Your task to perform on an android device: Open notification settings Image 0: 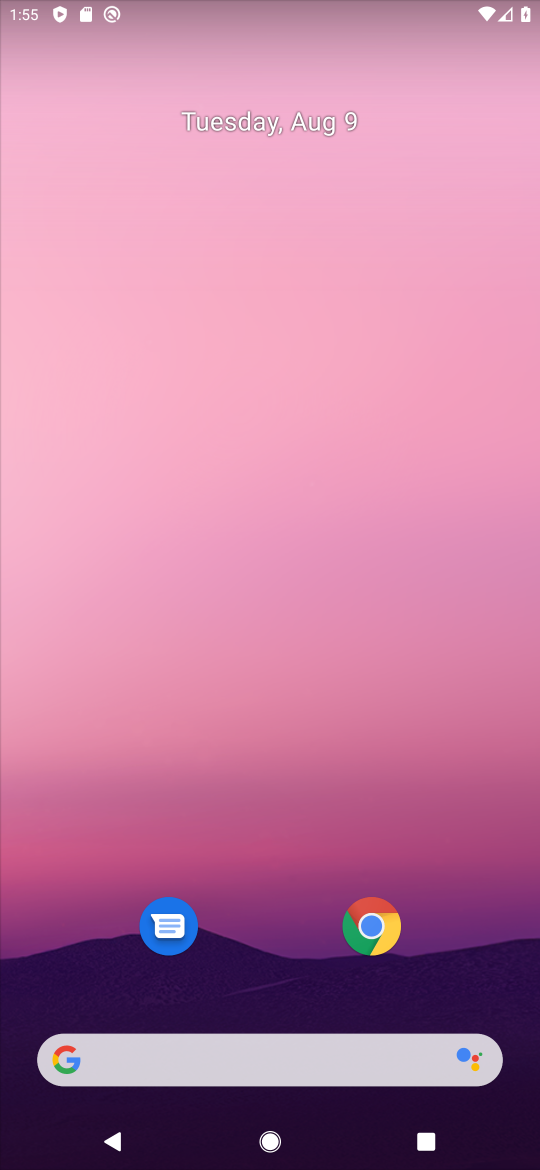
Step 0: press home button
Your task to perform on an android device: Open notification settings Image 1: 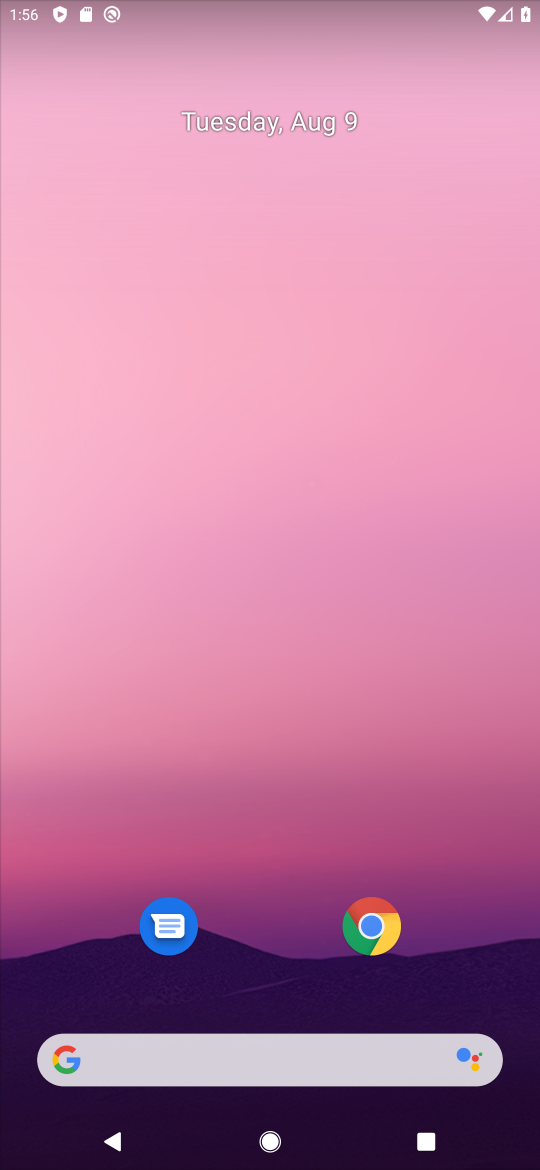
Step 1: drag from (319, 774) to (319, 172)
Your task to perform on an android device: Open notification settings Image 2: 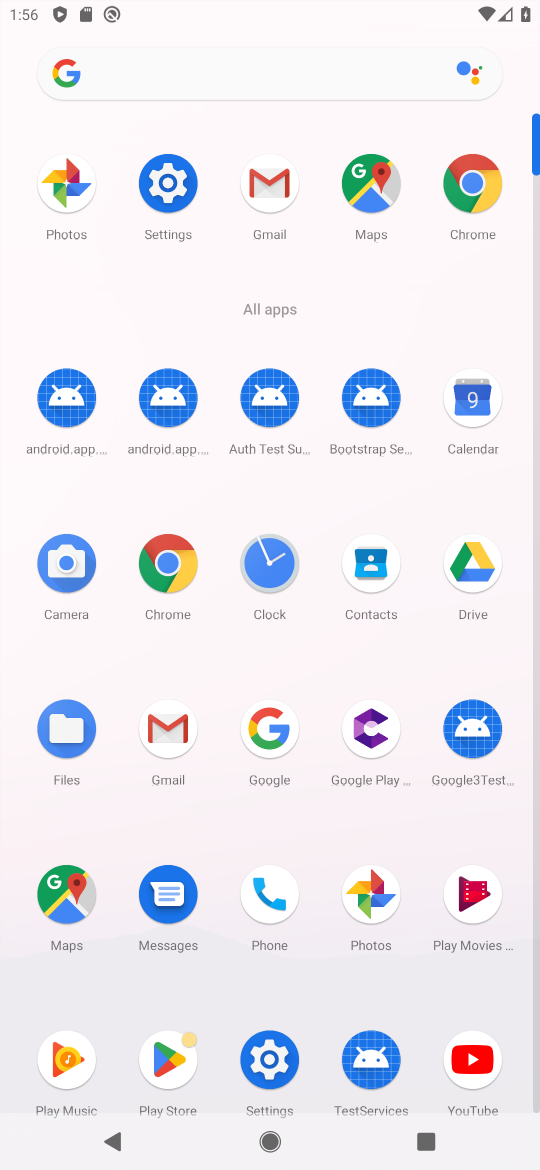
Step 2: click (288, 1075)
Your task to perform on an android device: Open notification settings Image 3: 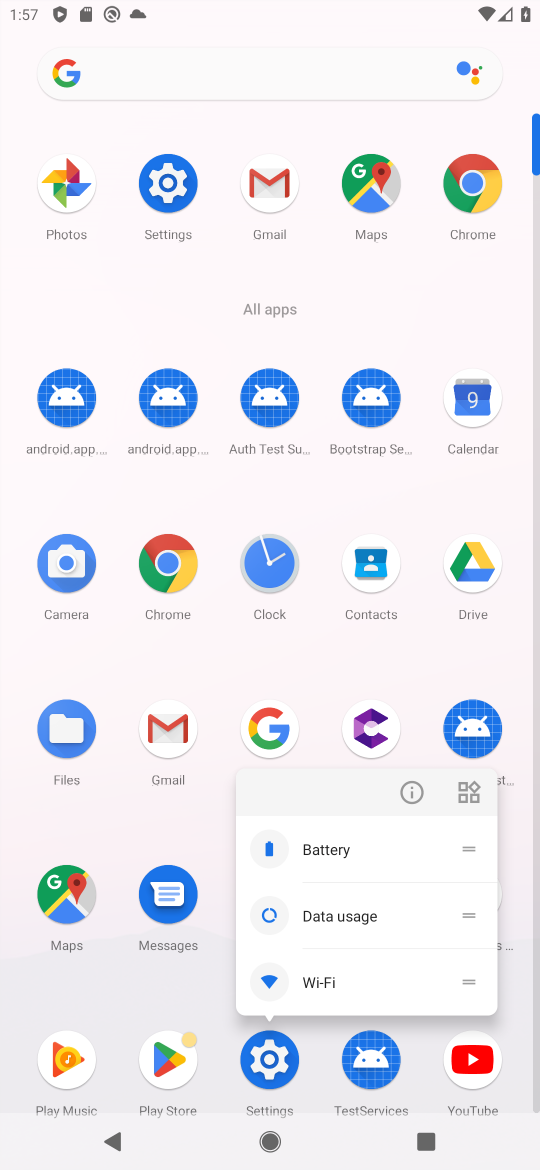
Step 3: click (282, 1074)
Your task to perform on an android device: Open notification settings Image 4: 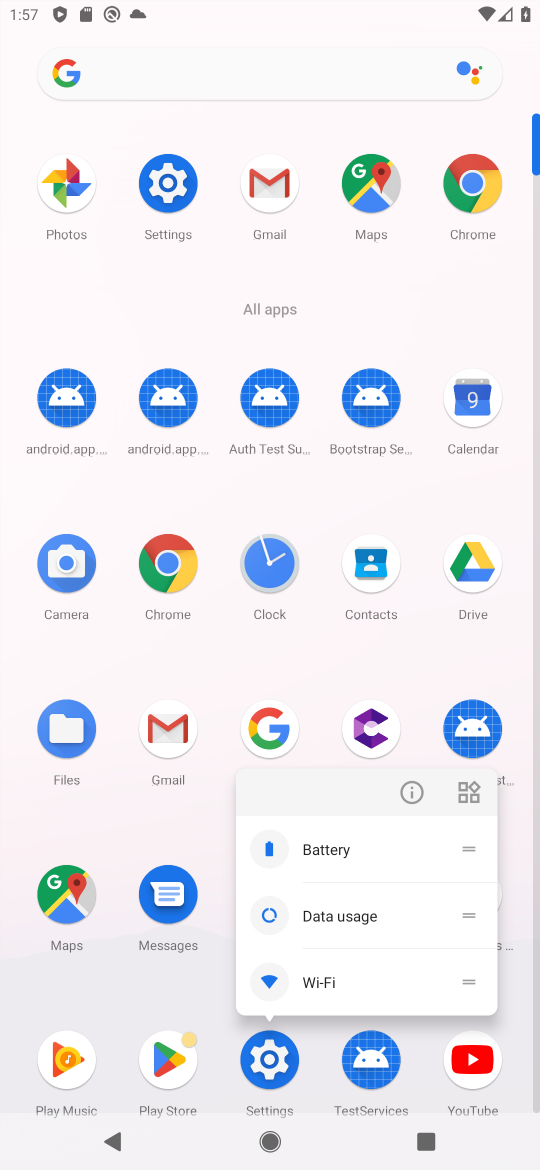
Step 4: click (279, 1056)
Your task to perform on an android device: Open notification settings Image 5: 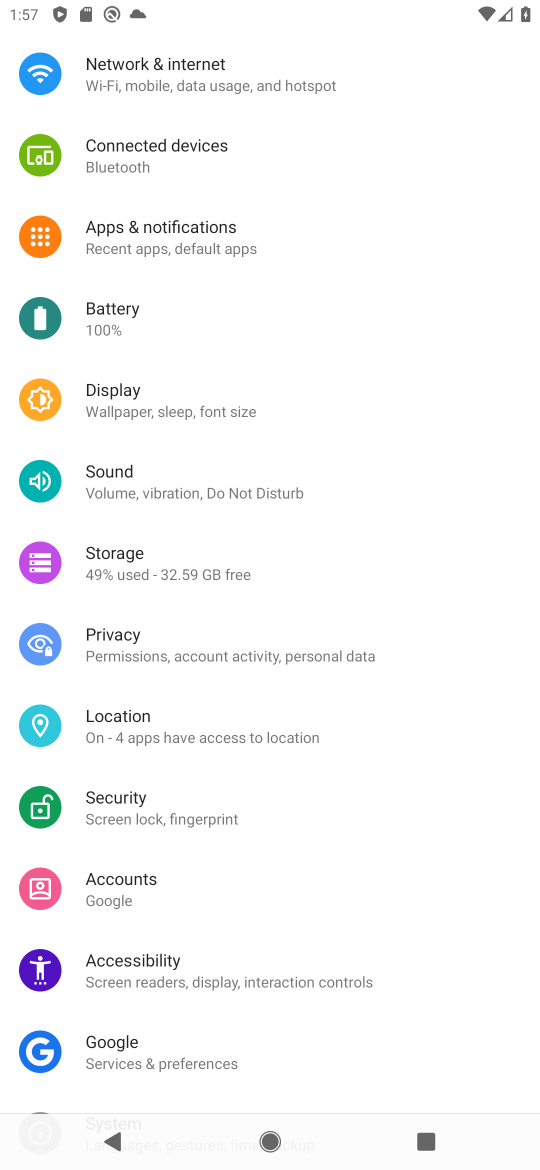
Step 5: click (62, 209)
Your task to perform on an android device: Open notification settings Image 6: 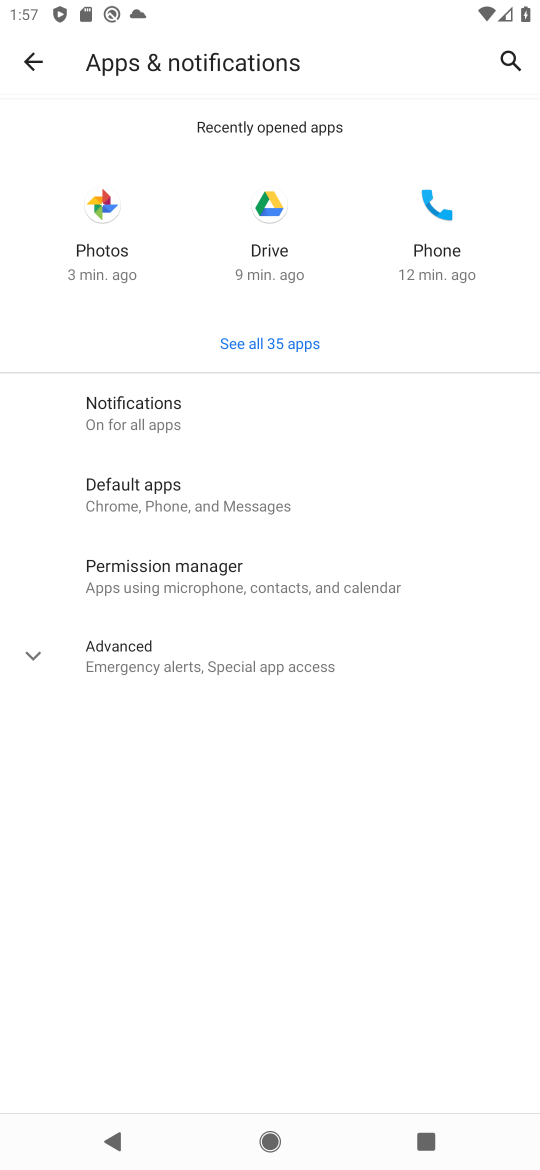
Step 6: task complete